Your task to perform on an android device: Go to CNN.com Image 0: 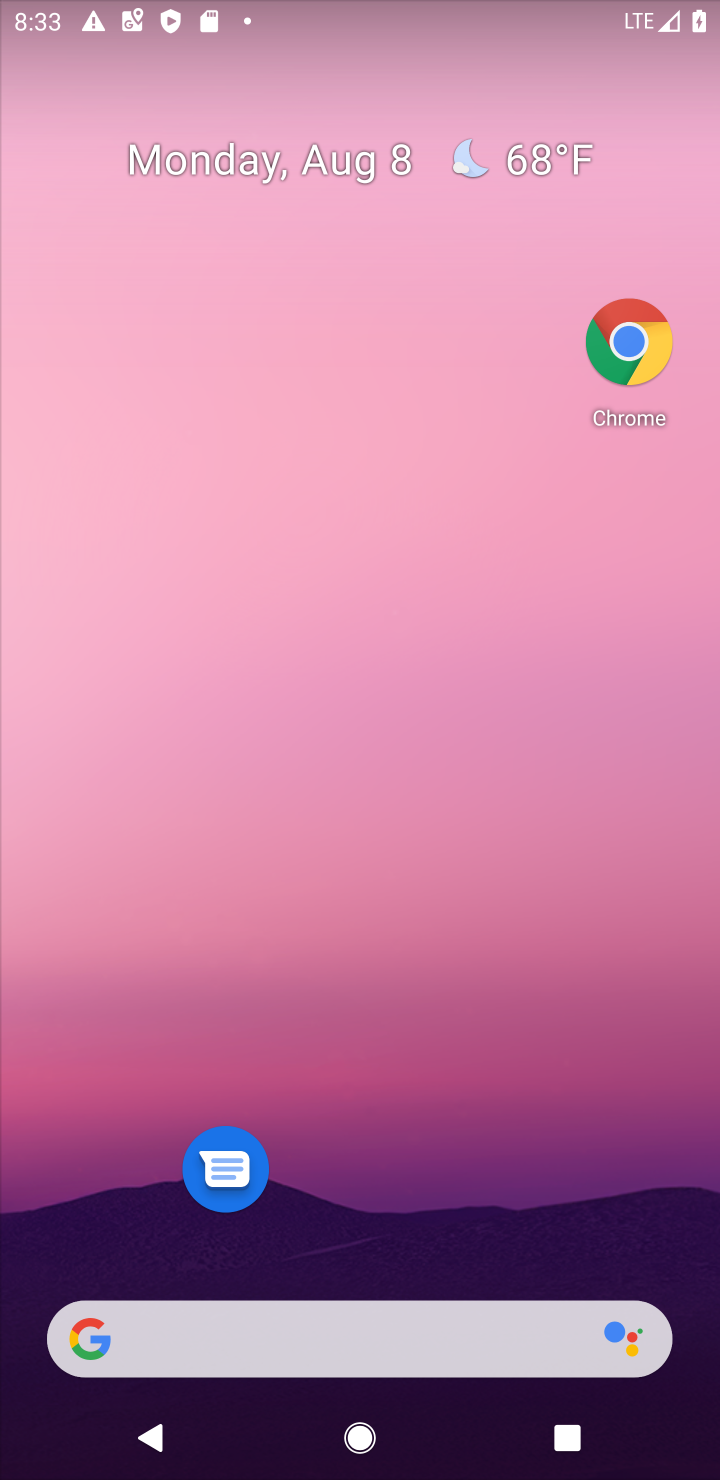
Step 0: click (628, 337)
Your task to perform on an android device: Go to CNN.com Image 1: 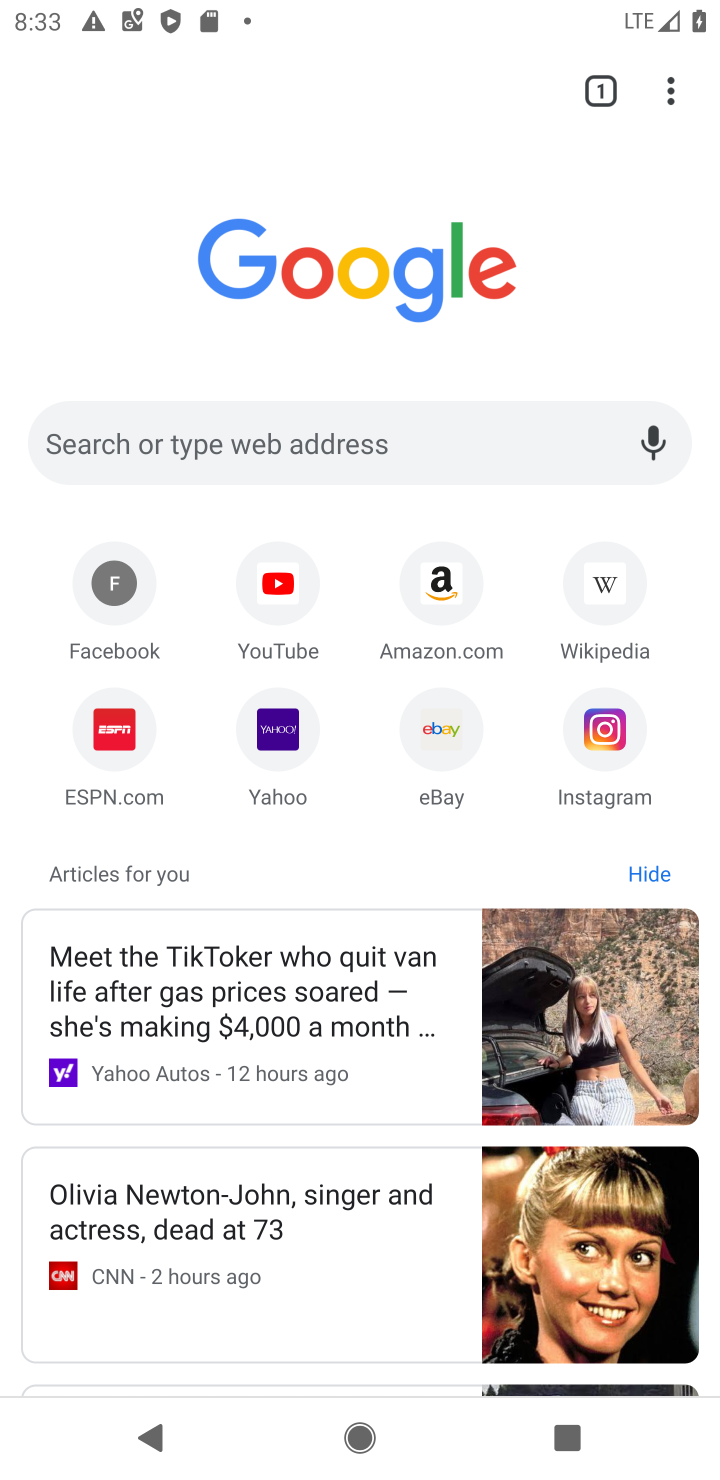
Step 1: click (346, 448)
Your task to perform on an android device: Go to CNN.com Image 2: 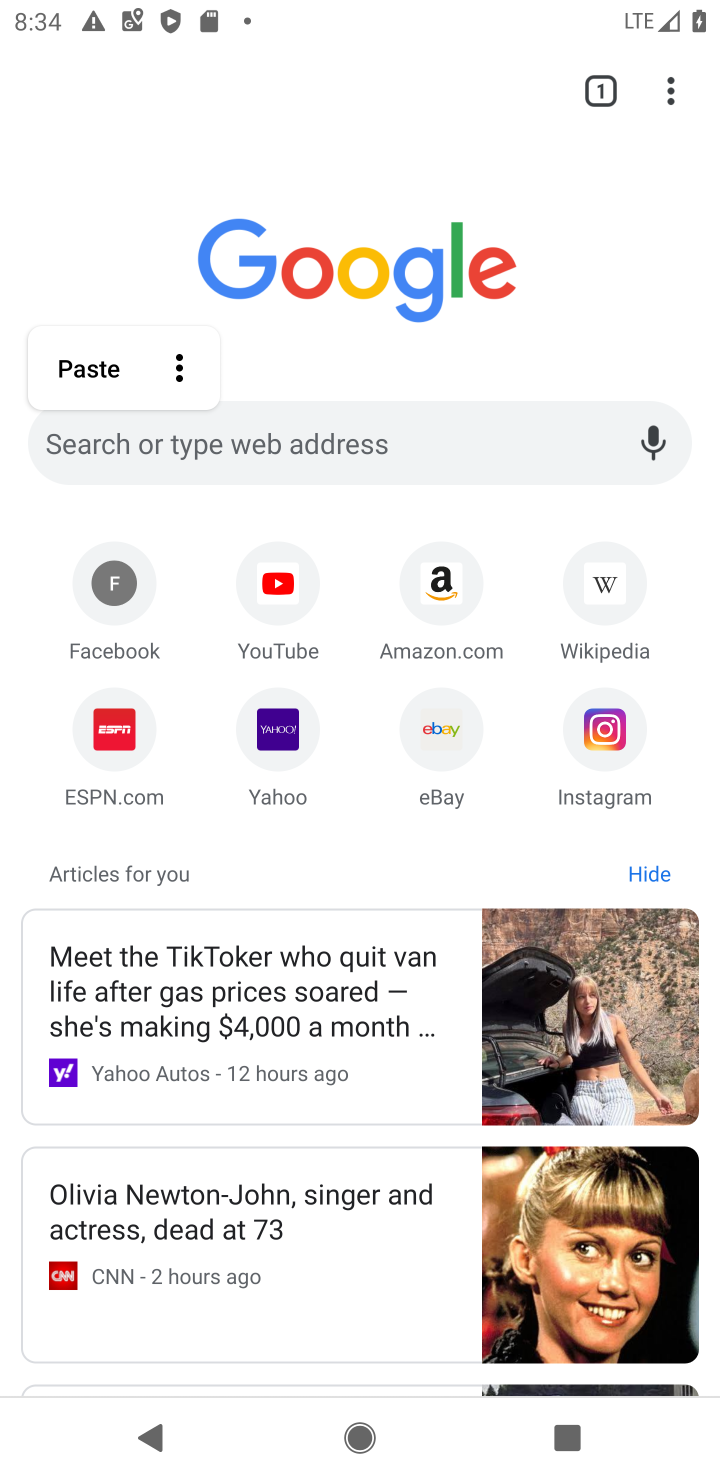
Step 2: type "cnn.com"
Your task to perform on an android device: Go to CNN.com Image 3: 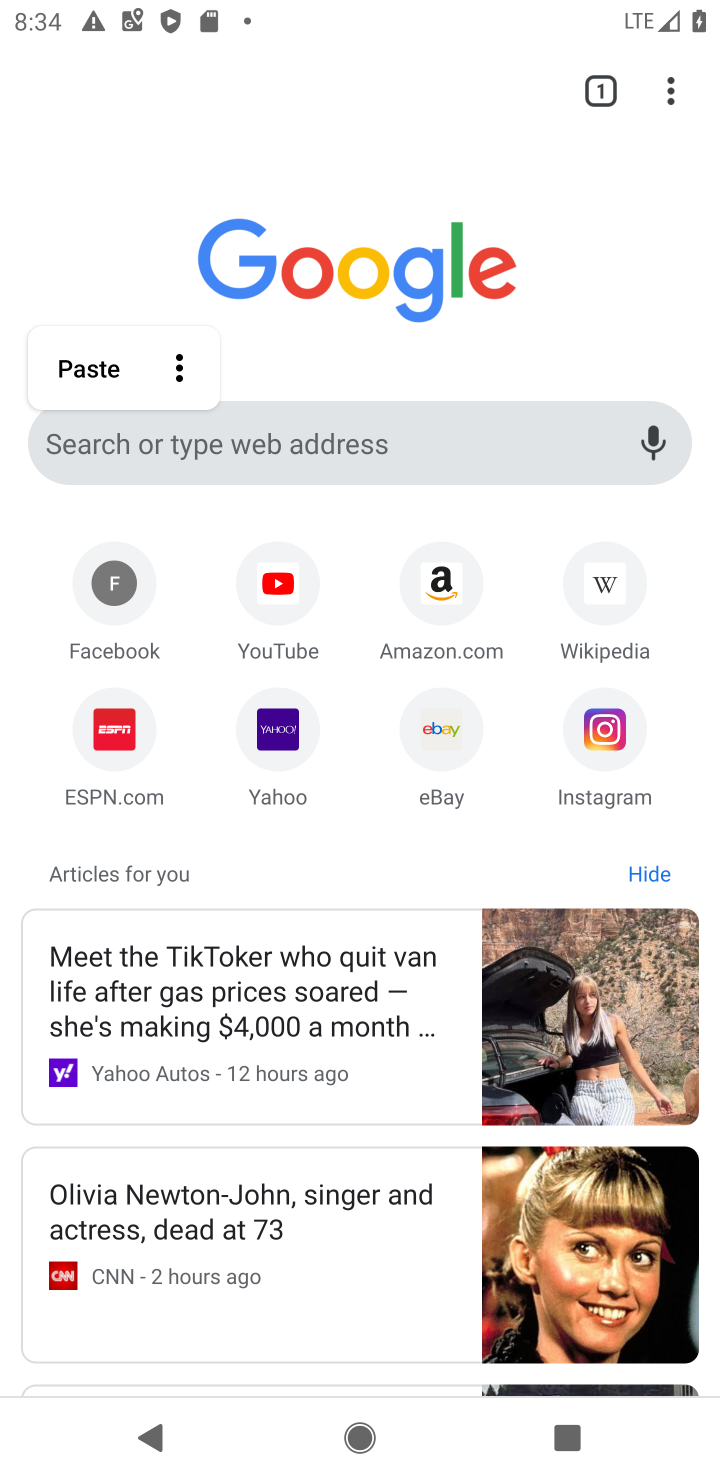
Step 3: click (399, 441)
Your task to perform on an android device: Go to CNN.com Image 4: 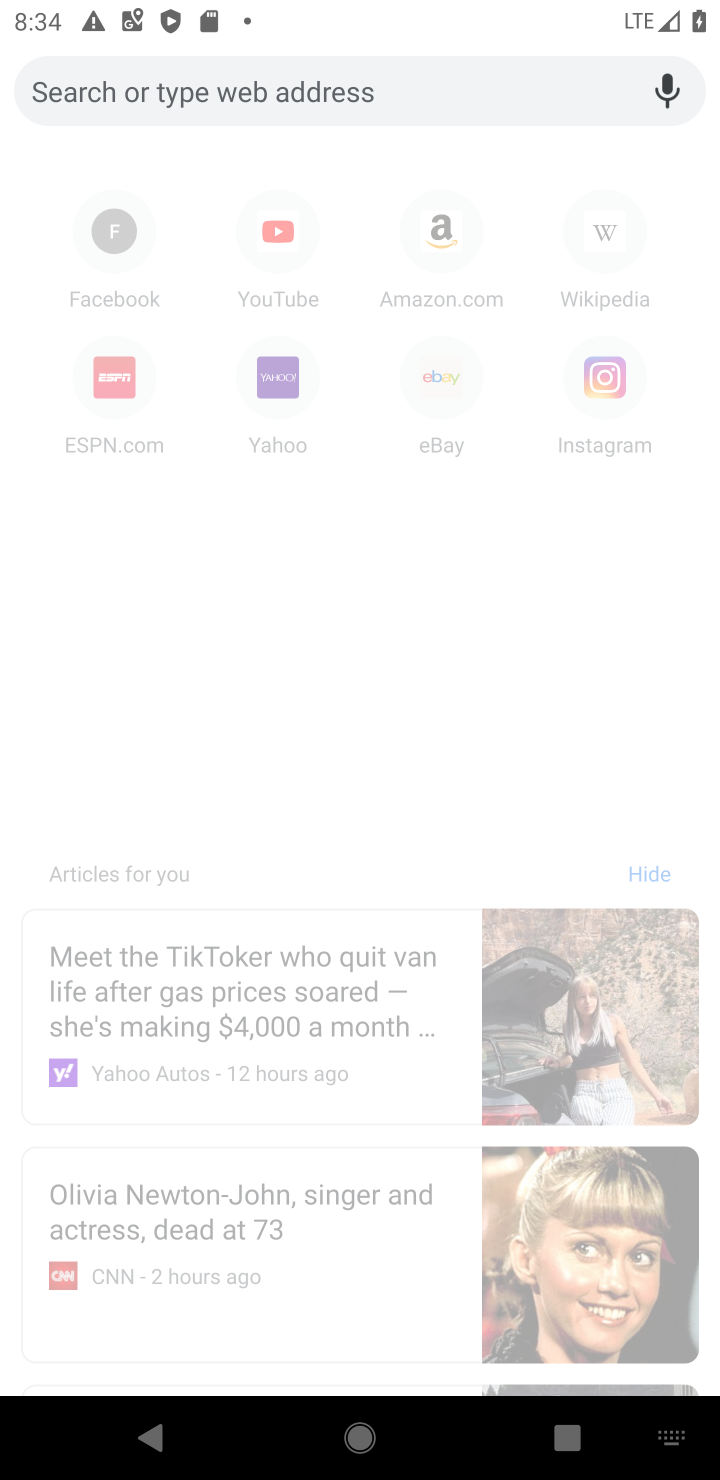
Step 4: click (172, 80)
Your task to perform on an android device: Go to CNN.com Image 5: 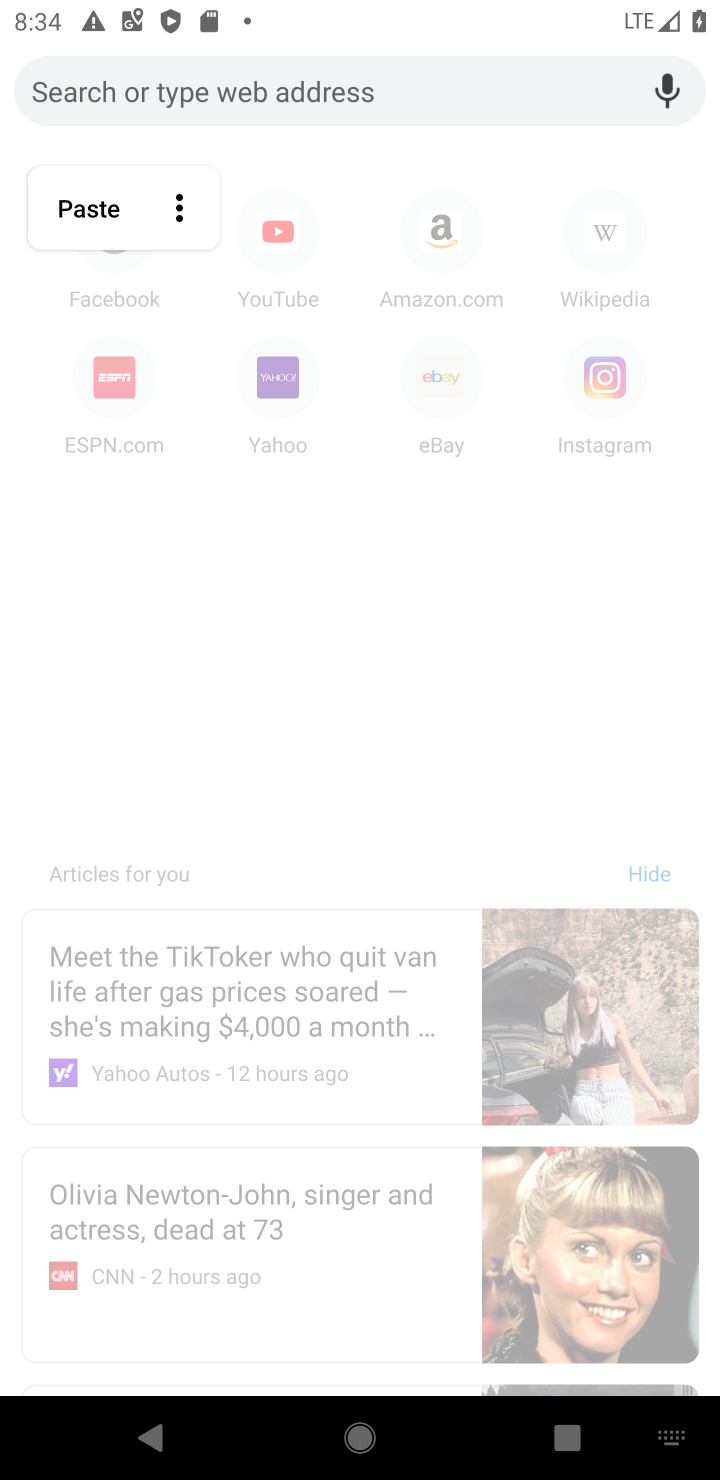
Step 5: type "cnn.com"
Your task to perform on an android device: Go to CNN.com Image 6: 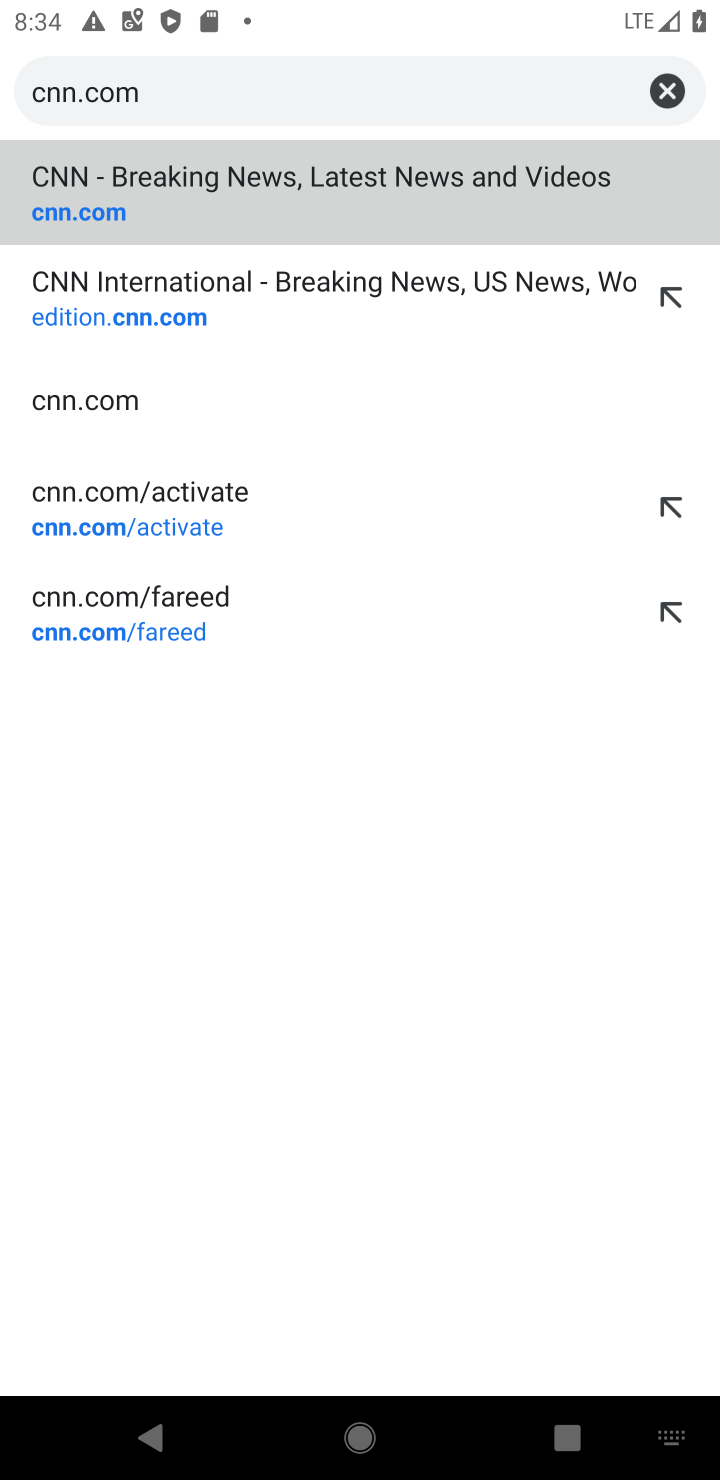
Step 6: click (176, 171)
Your task to perform on an android device: Go to CNN.com Image 7: 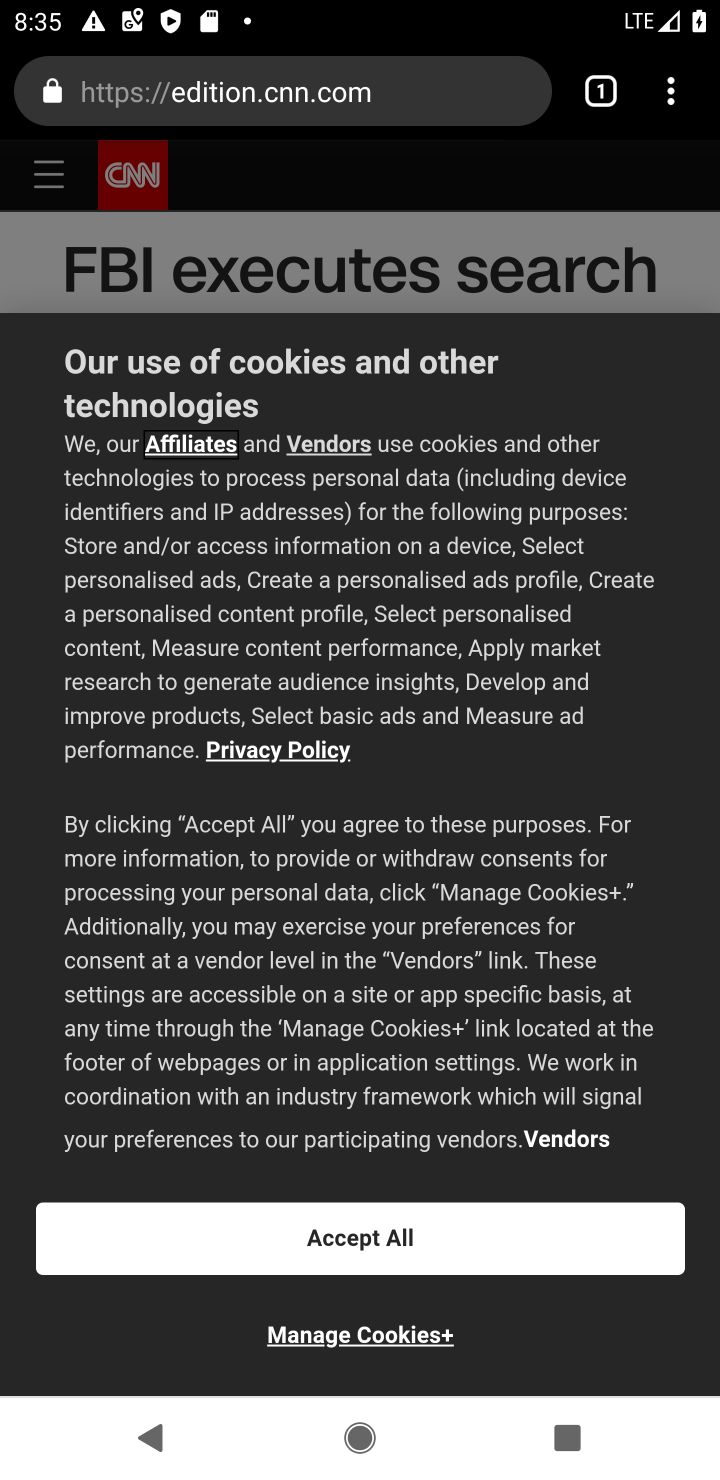
Step 7: task complete